Your task to perform on an android device: change the clock display to digital Image 0: 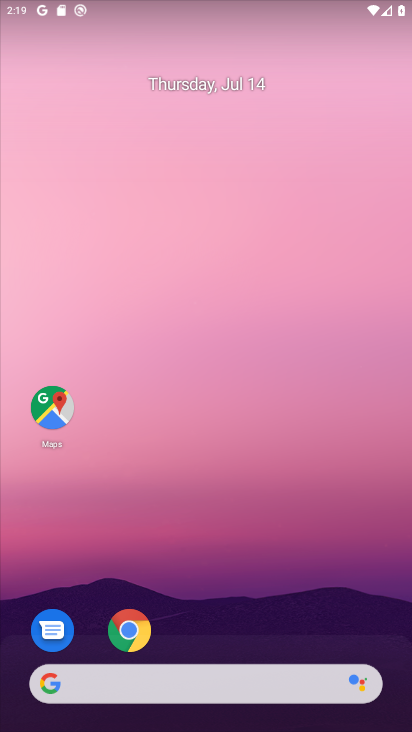
Step 0: drag from (230, 592) to (294, 14)
Your task to perform on an android device: change the clock display to digital Image 1: 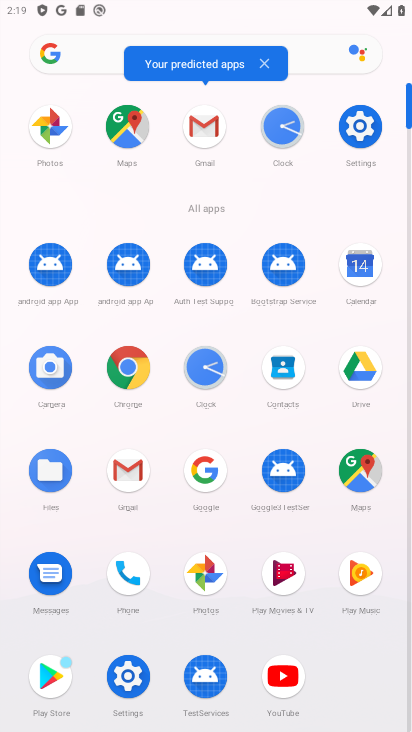
Step 1: click (216, 363)
Your task to perform on an android device: change the clock display to digital Image 2: 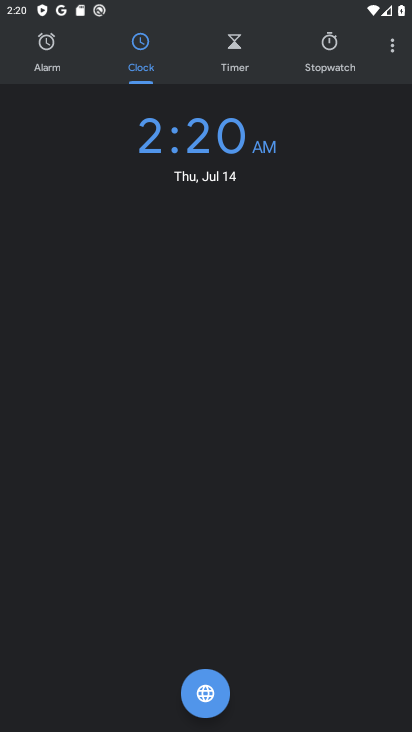
Step 2: click (396, 44)
Your task to perform on an android device: change the clock display to digital Image 3: 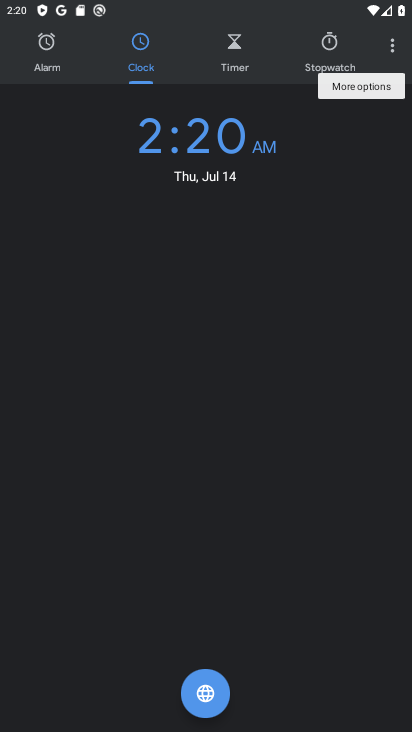
Step 3: click (400, 51)
Your task to perform on an android device: change the clock display to digital Image 4: 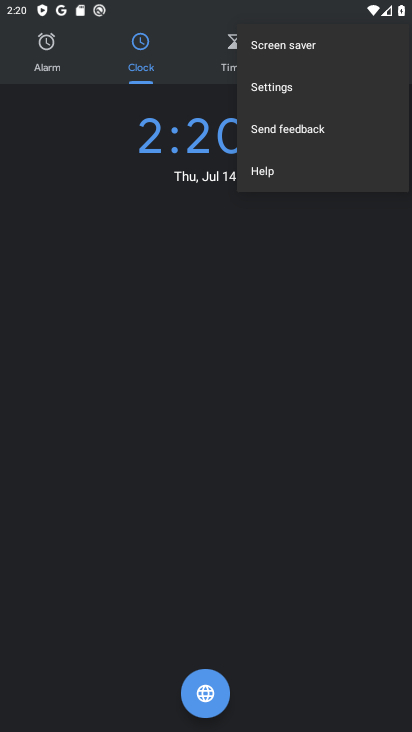
Step 4: click (352, 86)
Your task to perform on an android device: change the clock display to digital Image 5: 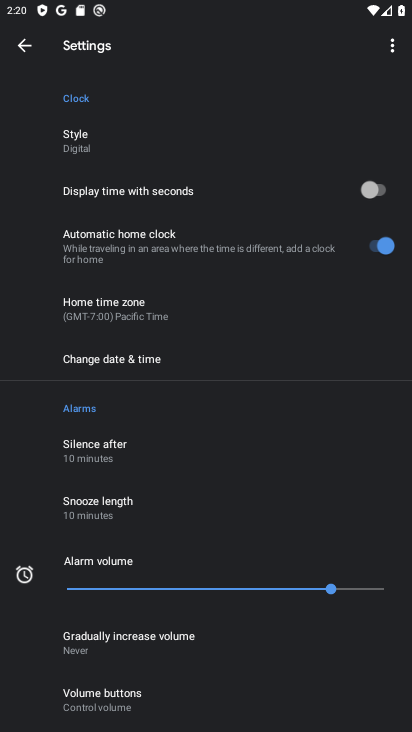
Step 5: task complete